Your task to perform on an android device: Is it going to rain tomorrow? Image 0: 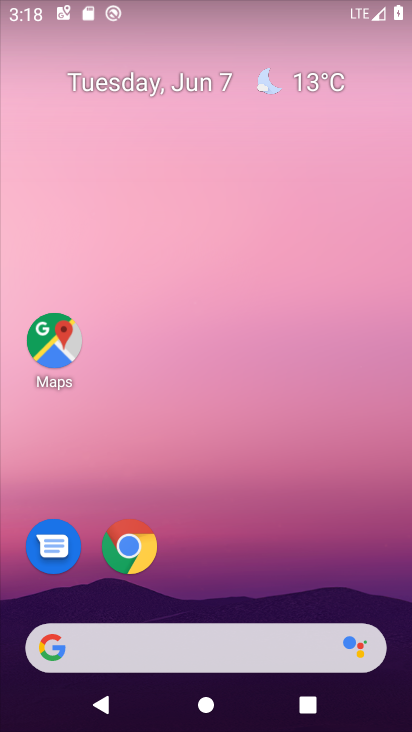
Step 0: click (284, 76)
Your task to perform on an android device: Is it going to rain tomorrow? Image 1: 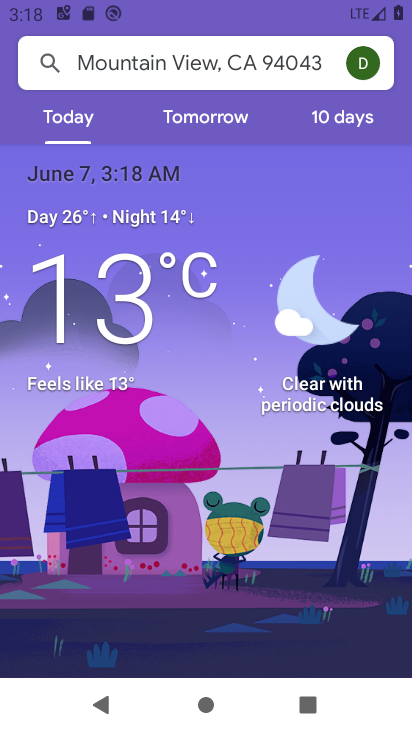
Step 1: click (208, 111)
Your task to perform on an android device: Is it going to rain tomorrow? Image 2: 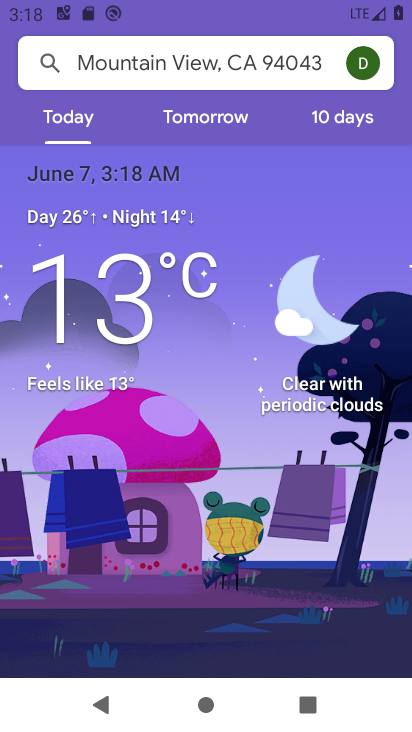
Step 2: click (218, 120)
Your task to perform on an android device: Is it going to rain tomorrow? Image 3: 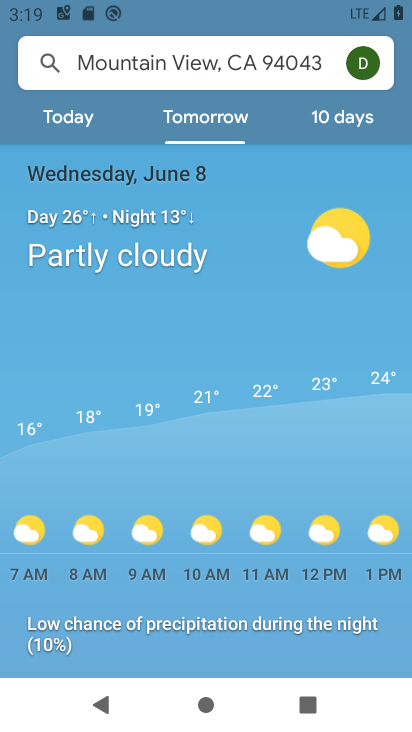
Step 3: task complete